Your task to perform on an android device: open app "Booking.com: Hotels and more" (install if not already installed) Image 0: 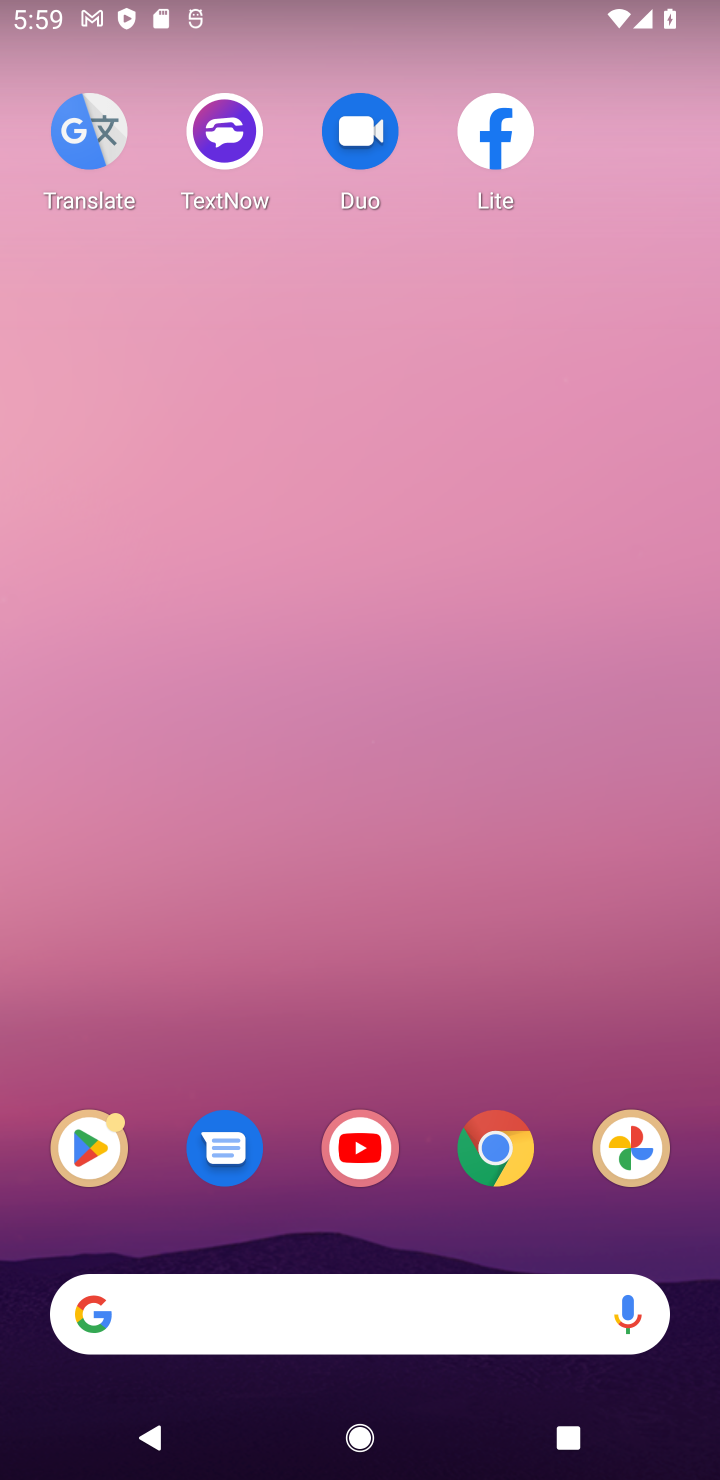
Step 0: press home button
Your task to perform on an android device: open app "Booking.com: Hotels and more" (install if not already installed) Image 1: 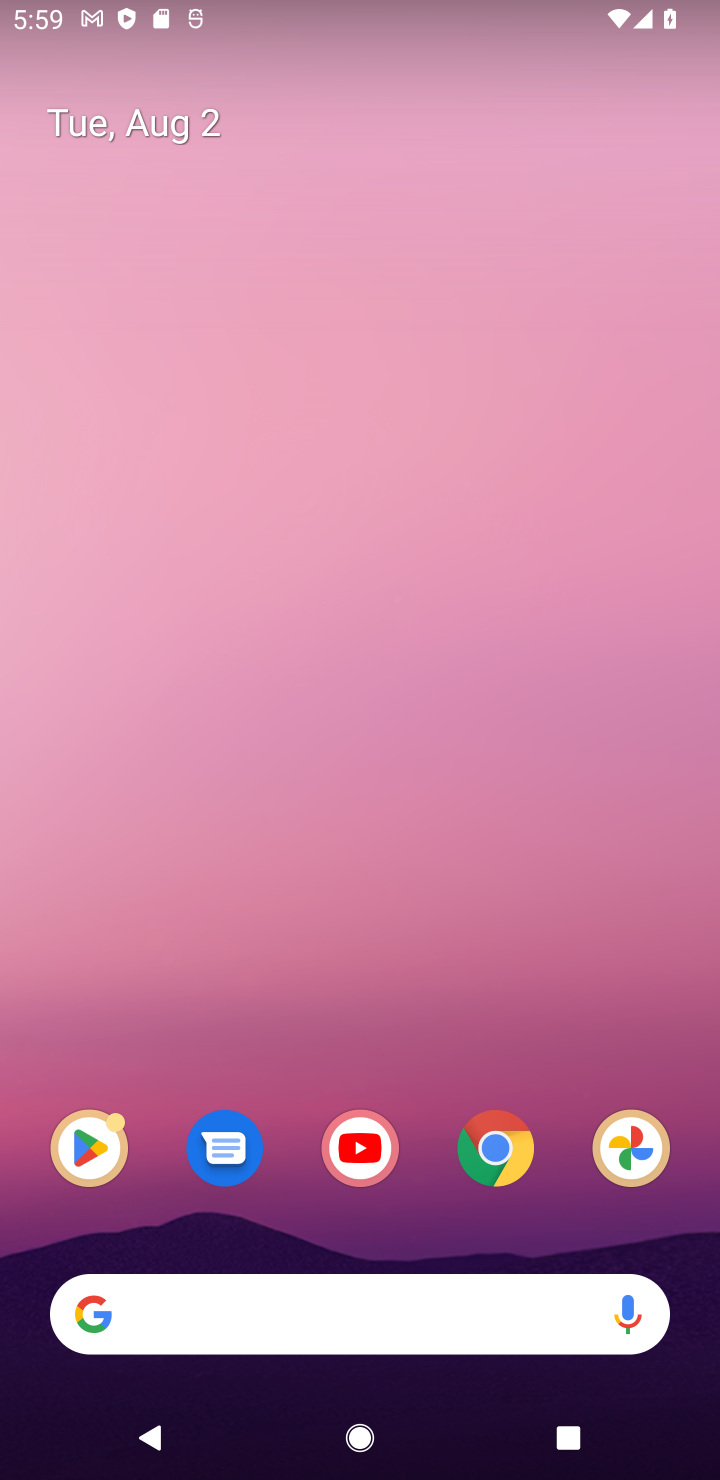
Step 1: drag from (455, 547) to (294, 4)
Your task to perform on an android device: open app "Booking.com: Hotels and more" (install if not already installed) Image 2: 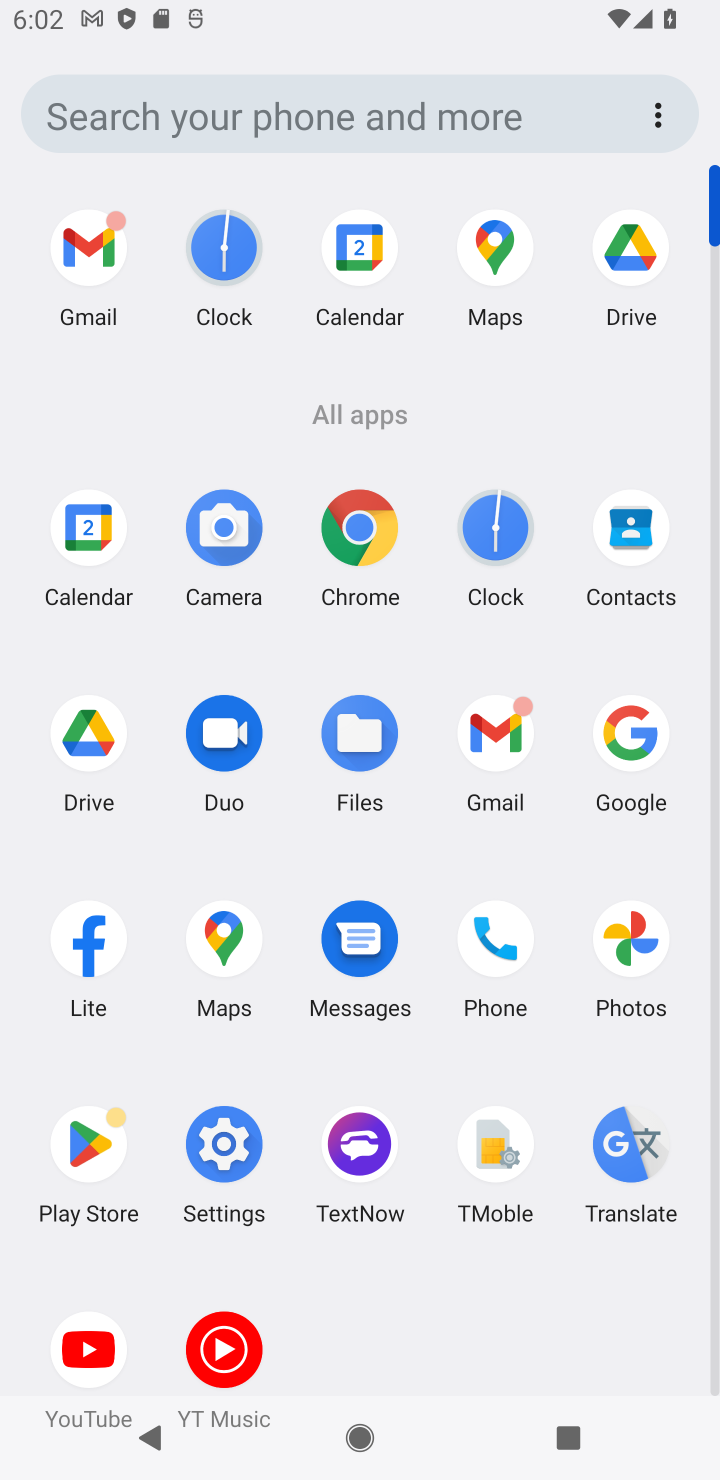
Step 2: click (64, 1137)
Your task to perform on an android device: open app "Booking.com: Hotels and more" (install if not already installed) Image 3: 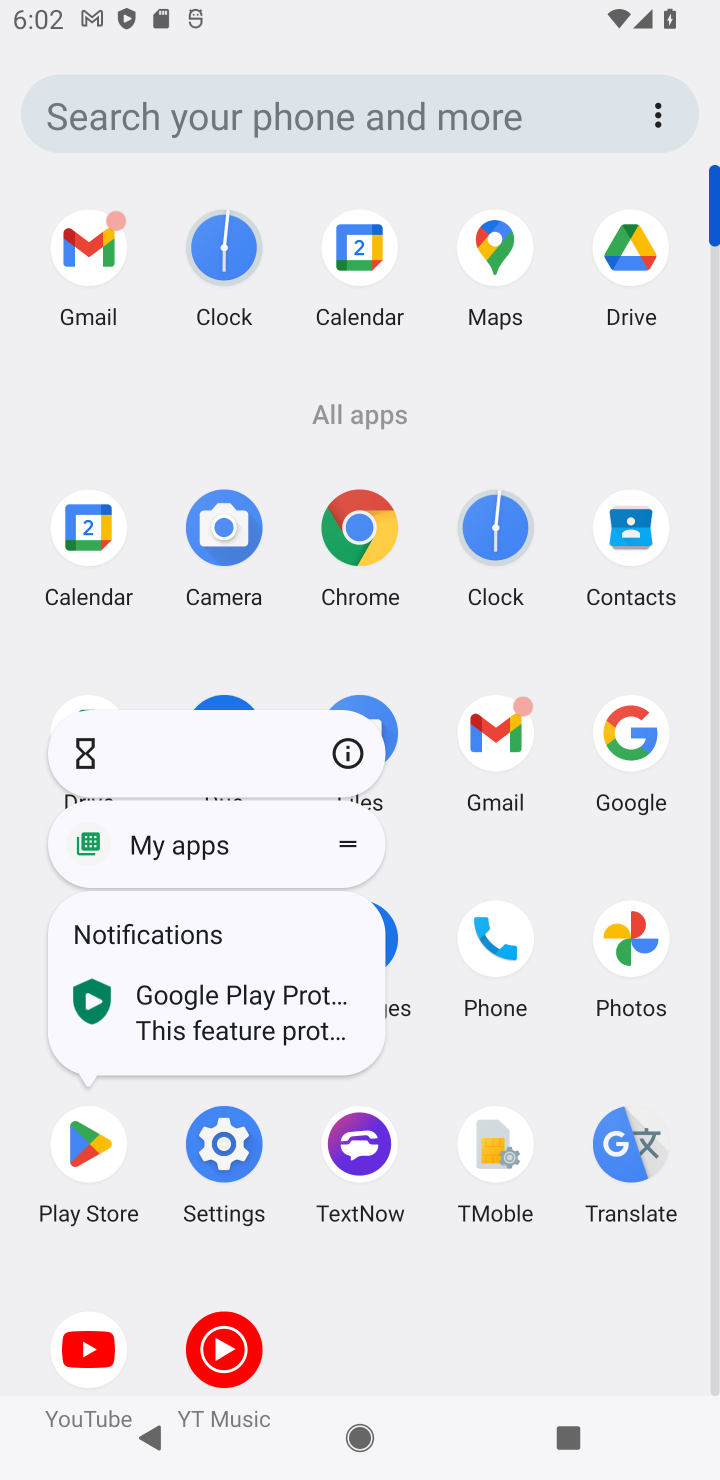
Step 3: click (64, 1137)
Your task to perform on an android device: open app "Booking.com: Hotels and more" (install if not already installed) Image 4: 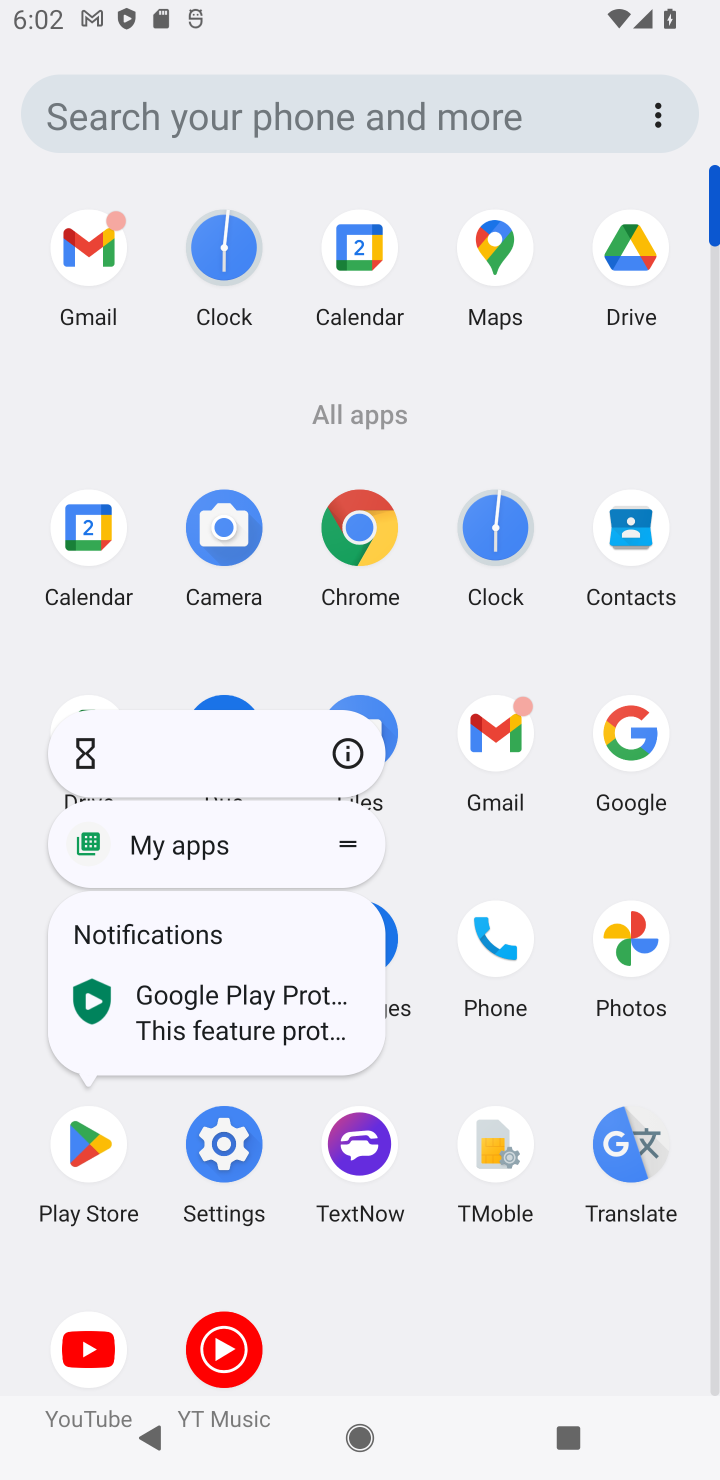
Step 4: click (94, 1103)
Your task to perform on an android device: open app "Booking.com: Hotels and more" (install if not already installed) Image 5: 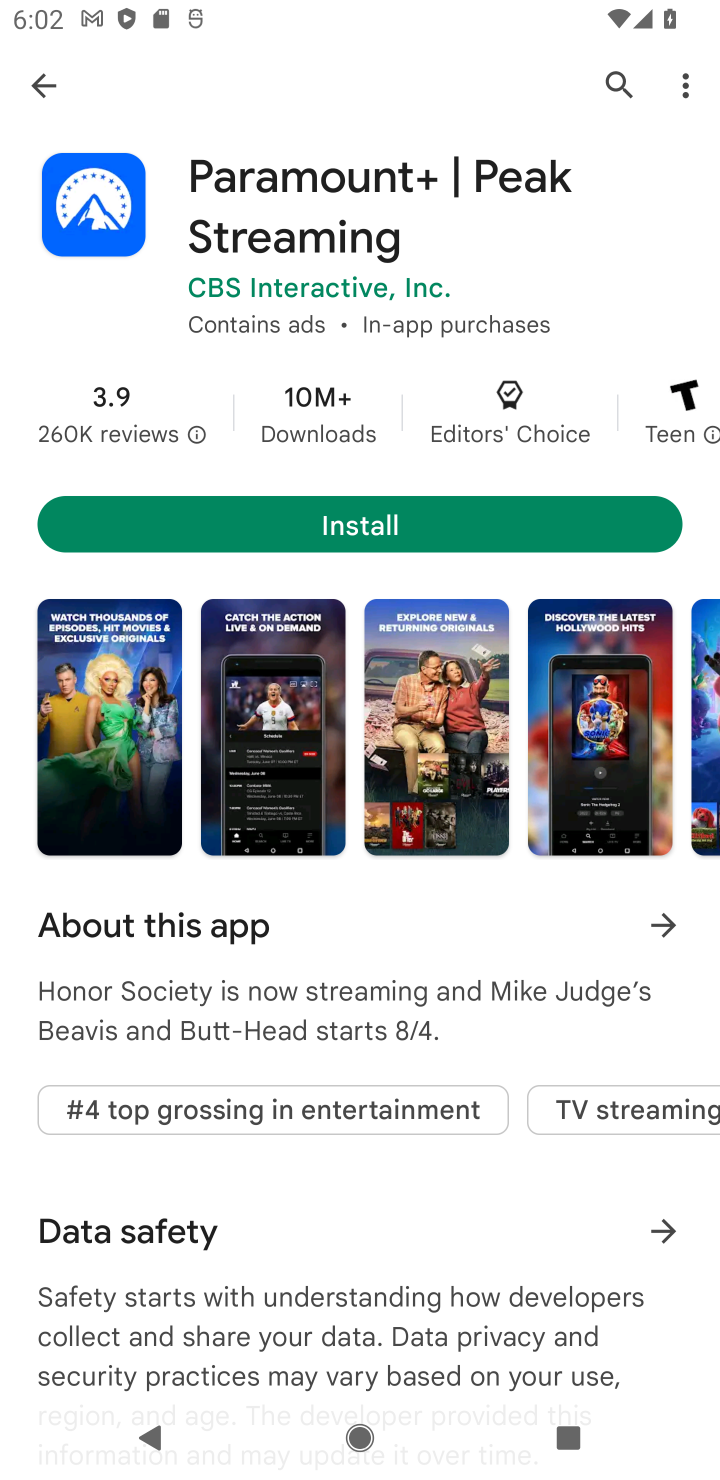
Step 5: press back button
Your task to perform on an android device: open app "Booking.com: Hotels and more" (install if not already installed) Image 6: 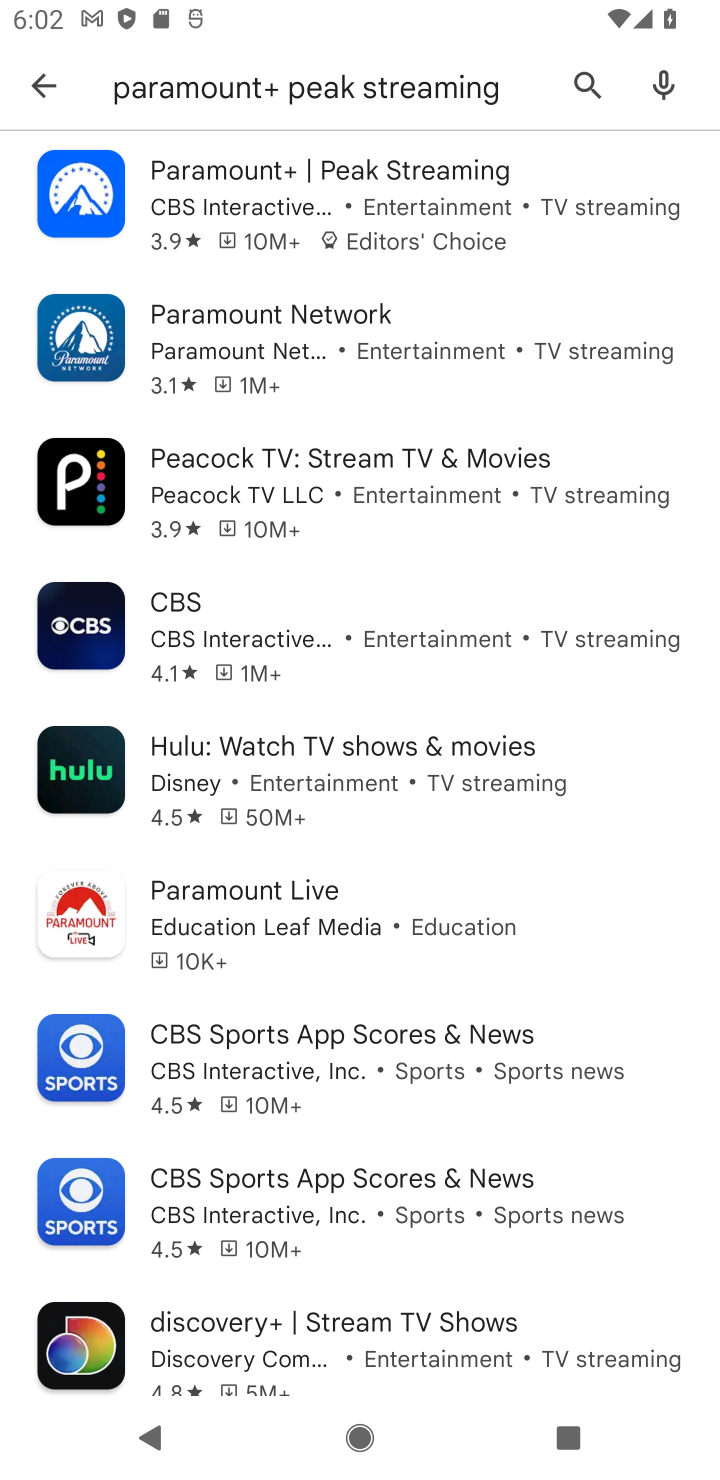
Step 6: press back button
Your task to perform on an android device: open app "Booking.com: Hotels and more" (install if not already installed) Image 7: 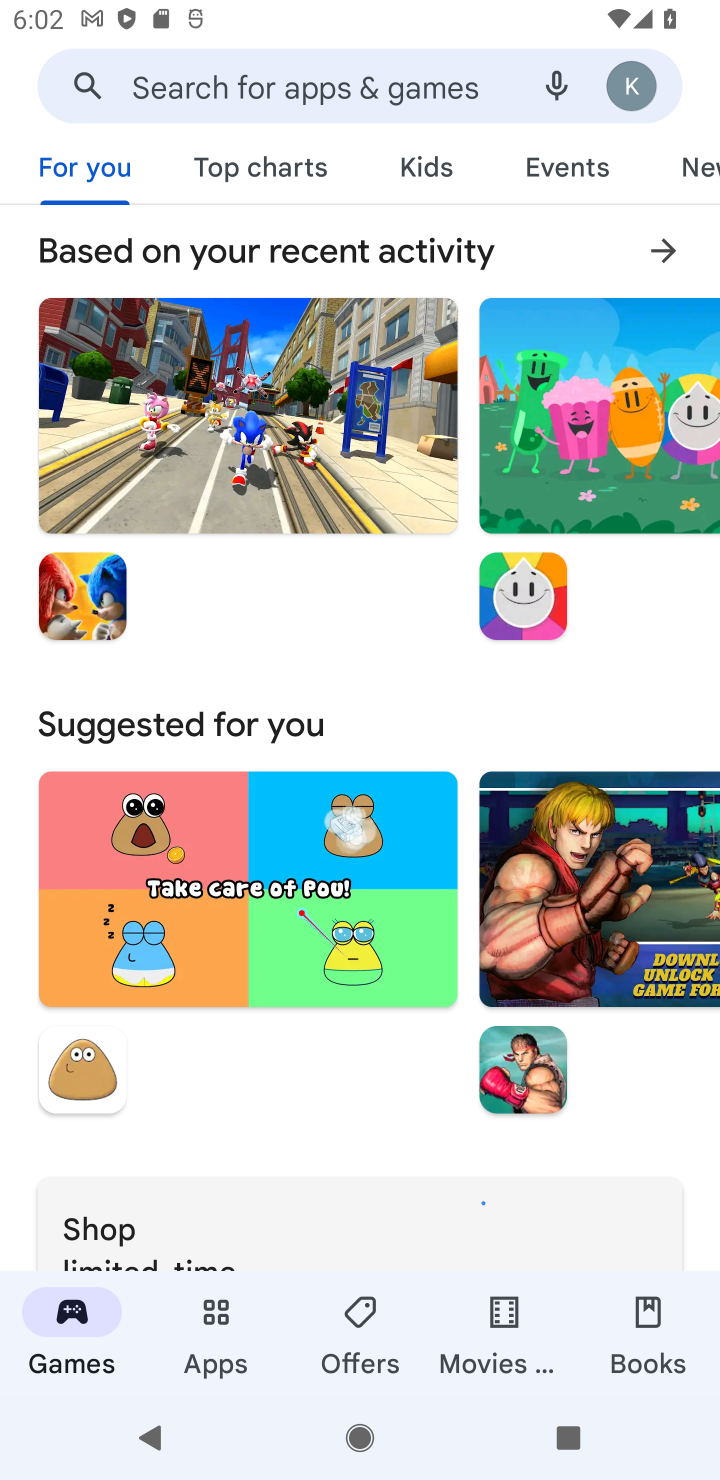
Step 7: click (211, 81)
Your task to perform on an android device: open app "Booking.com: Hotels and more" (install if not already installed) Image 8: 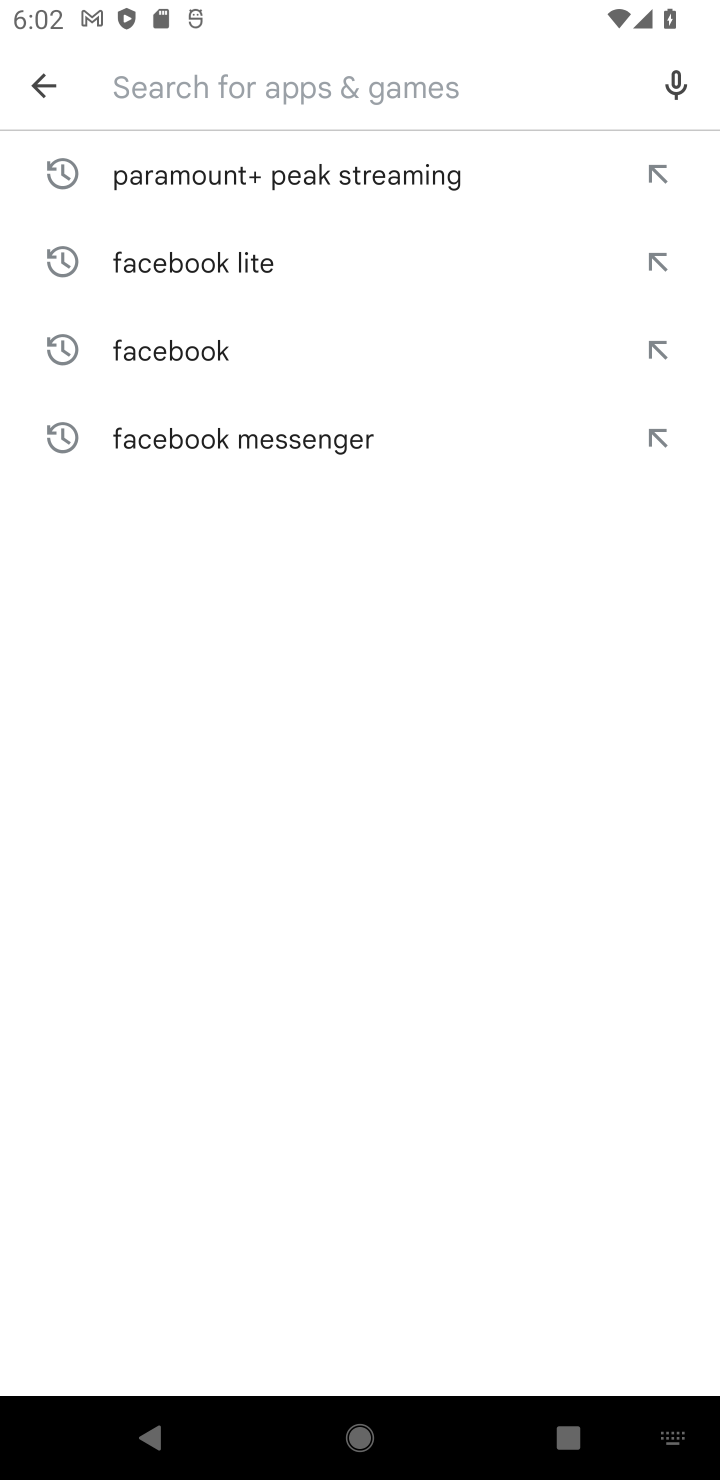
Step 8: type "Booking.com: Hotels and more"
Your task to perform on an android device: open app "Booking.com: Hotels and more" (install if not already installed) Image 9: 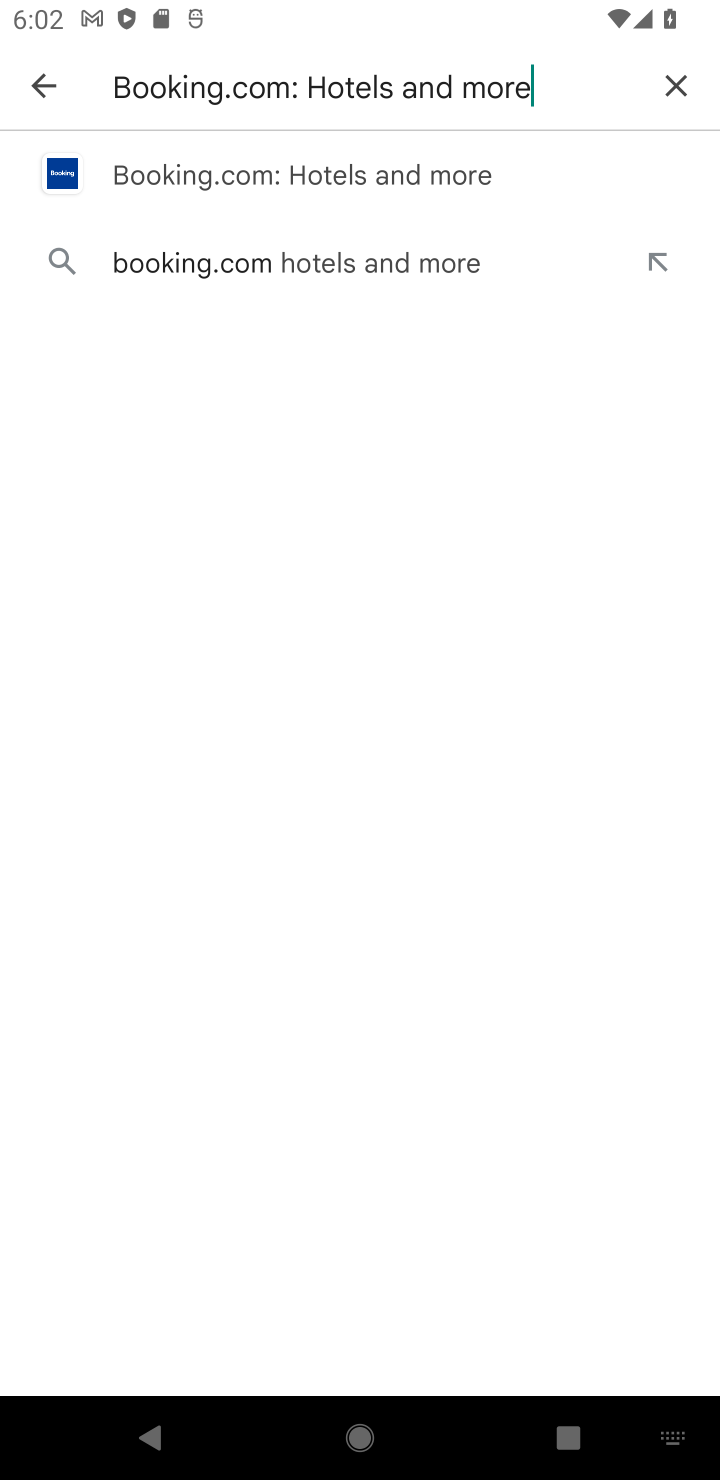
Step 9: click (257, 173)
Your task to perform on an android device: open app "Booking.com: Hotels and more" (install if not already installed) Image 10: 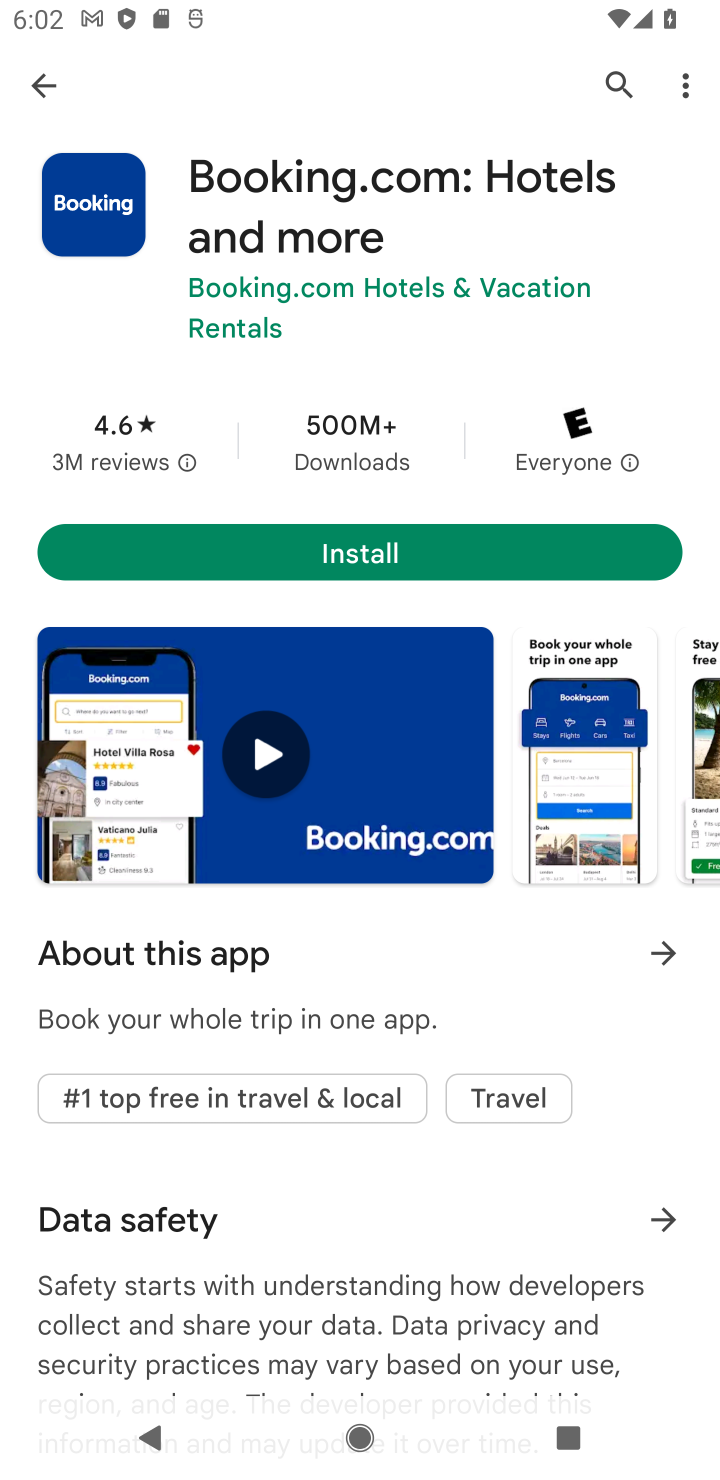
Step 10: task complete